Your task to perform on an android device: allow notifications from all sites in the chrome app Image 0: 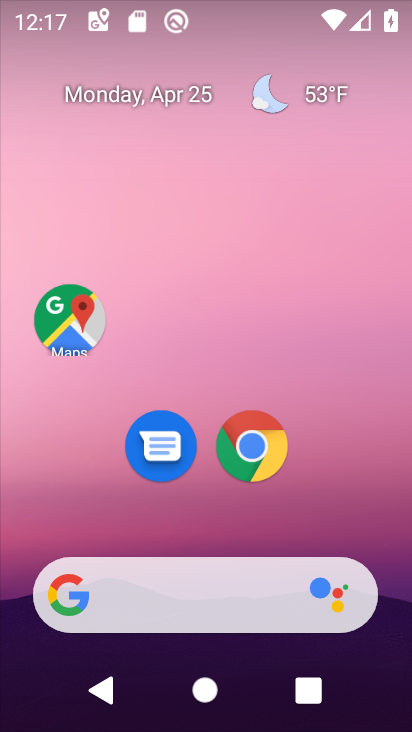
Step 0: click (255, 439)
Your task to perform on an android device: allow notifications from all sites in the chrome app Image 1: 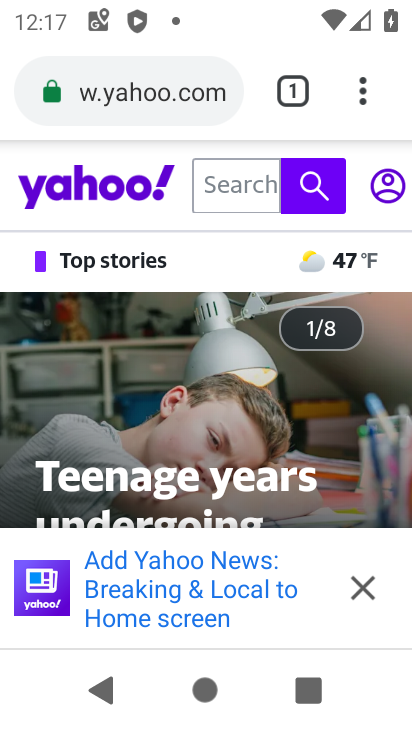
Step 1: click (369, 102)
Your task to perform on an android device: allow notifications from all sites in the chrome app Image 2: 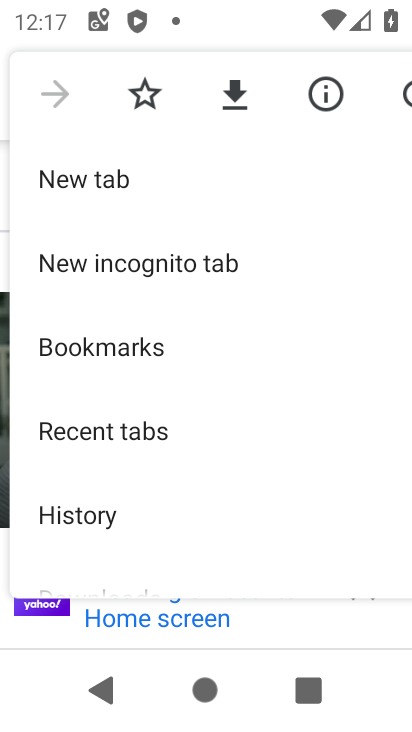
Step 2: drag from (131, 459) to (145, 176)
Your task to perform on an android device: allow notifications from all sites in the chrome app Image 3: 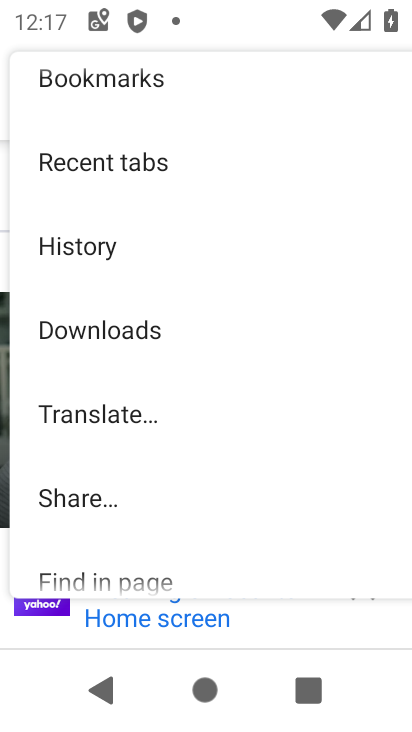
Step 3: drag from (109, 477) to (154, 227)
Your task to perform on an android device: allow notifications from all sites in the chrome app Image 4: 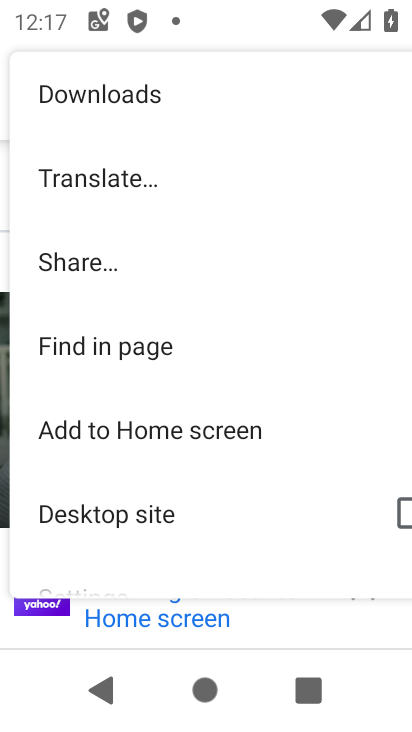
Step 4: drag from (149, 496) to (189, 262)
Your task to perform on an android device: allow notifications from all sites in the chrome app Image 5: 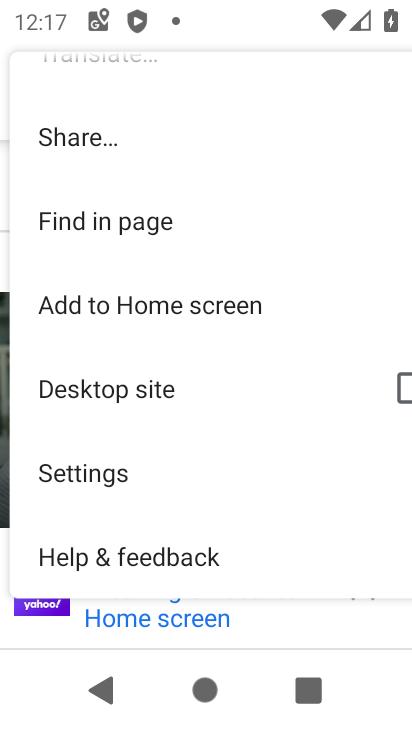
Step 5: click (106, 472)
Your task to perform on an android device: allow notifications from all sites in the chrome app Image 6: 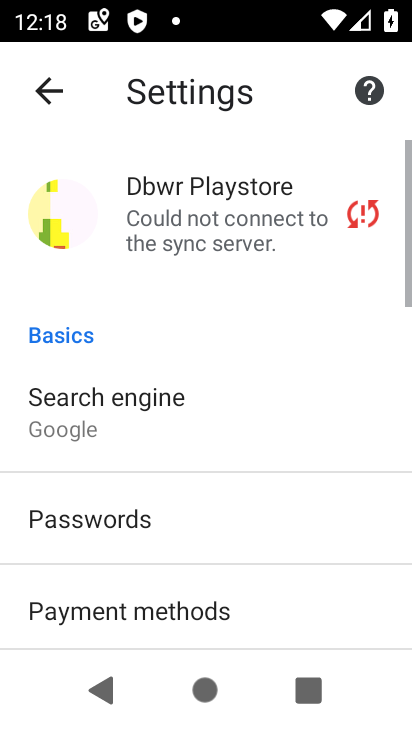
Step 6: drag from (139, 547) to (208, 238)
Your task to perform on an android device: allow notifications from all sites in the chrome app Image 7: 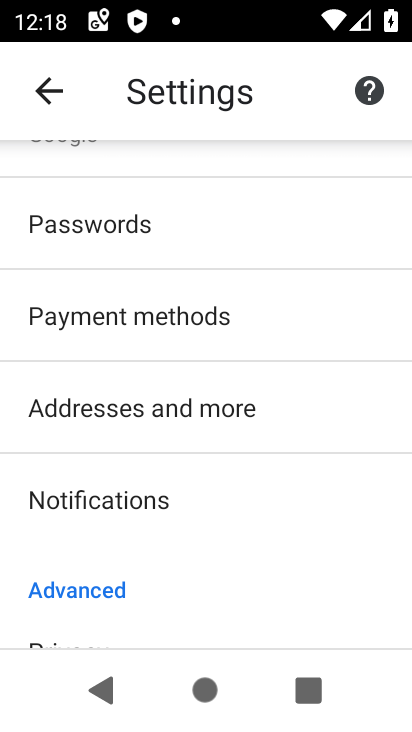
Step 7: click (101, 514)
Your task to perform on an android device: allow notifications from all sites in the chrome app Image 8: 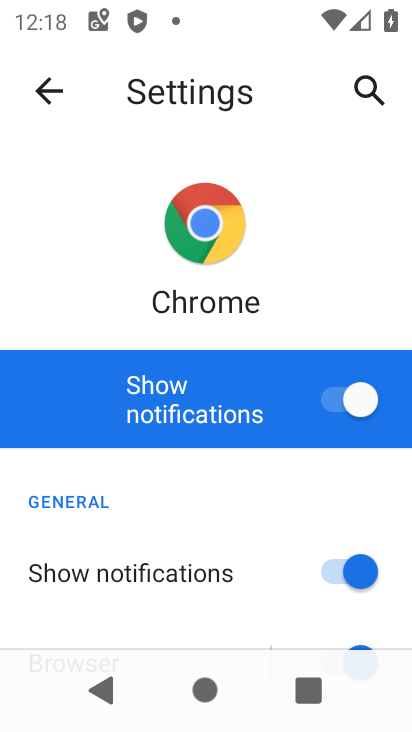
Step 8: click (331, 397)
Your task to perform on an android device: allow notifications from all sites in the chrome app Image 9: 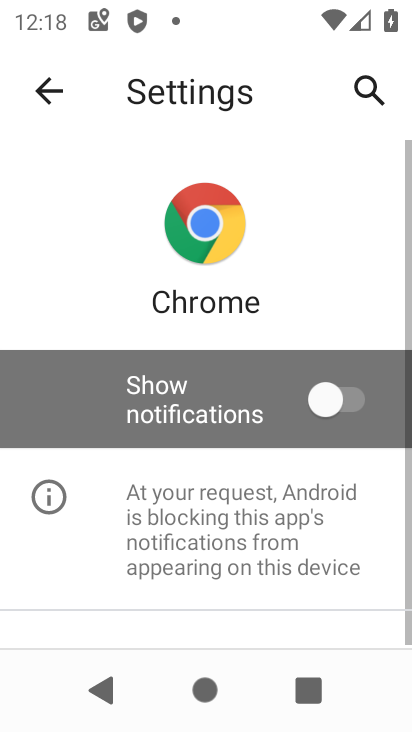
Step 9: task complete